Your task to perform on an android device: turn off notifications settings in the gmail app Image 0: 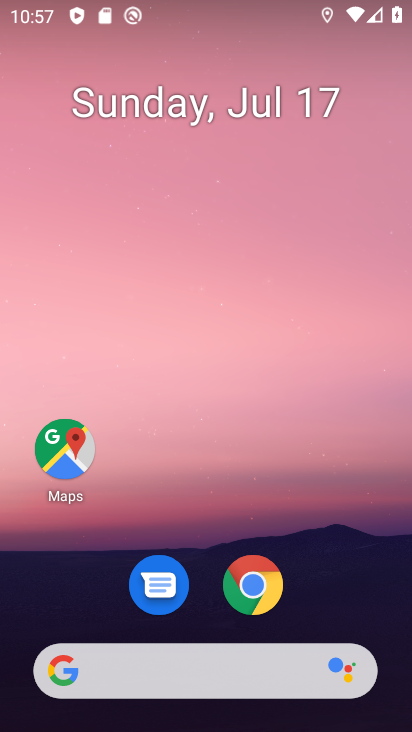
Step 0: drag from (308, 577) to (304, 14)
Your task to perform on an android device: turn off notifications settings in the gmail app Image 1: 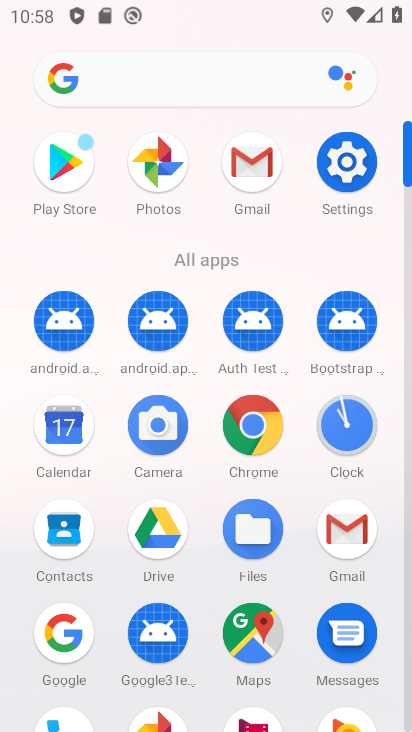
Step 1: click (264, 155)
Your task to perform on an android device: turn off notifications settings in the gmail app Image 2: 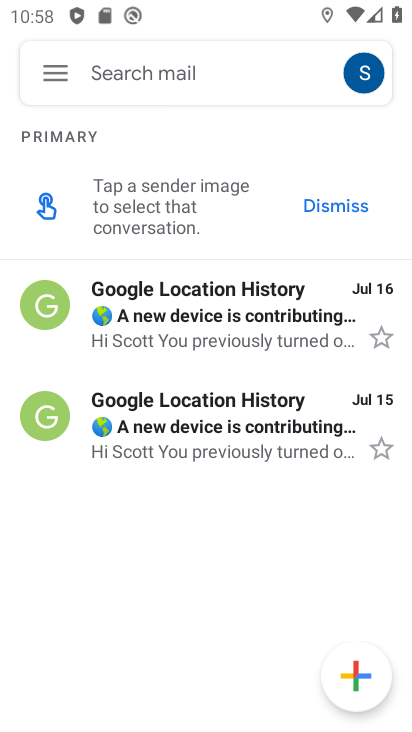
Step 2: click (50, 75)
Your task to perform on an android device: turn off notifications settings in the gmail app Image 3: 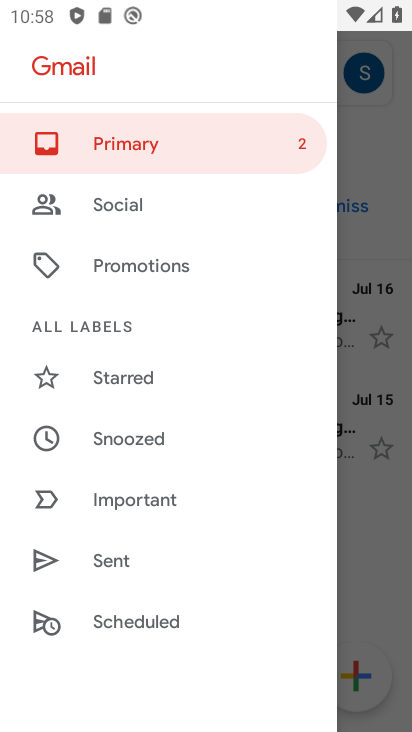
Step 3: drag from (150, 567) to (176, 133)
Your task to perform on an android device: turn off notifications settings in the gmail app Image 4: 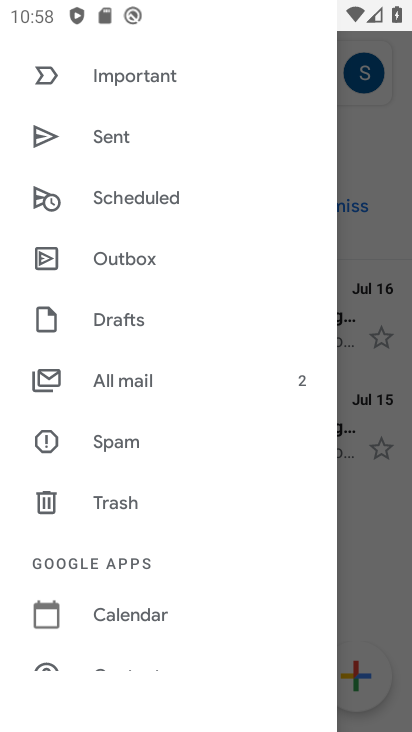
Step 4: drag from (175, 532) to (183, 272)
Your task to perform on an android device: turn off notifications settings in the gmail app Image 5: 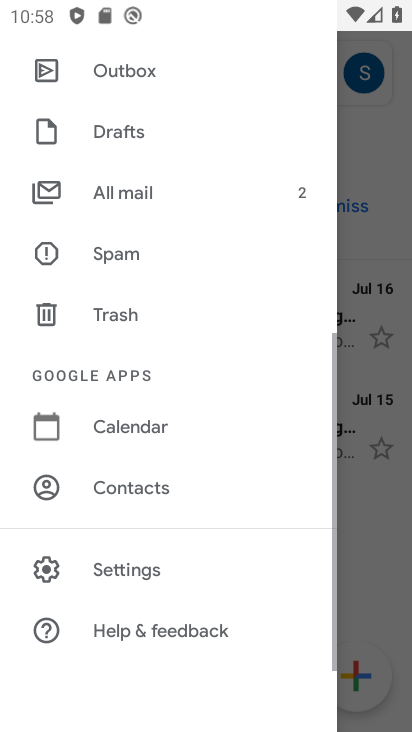
Step 5: click (161, 569)
Your task to perform on an android device: turn off notifications settings in the gmail app Image 6: 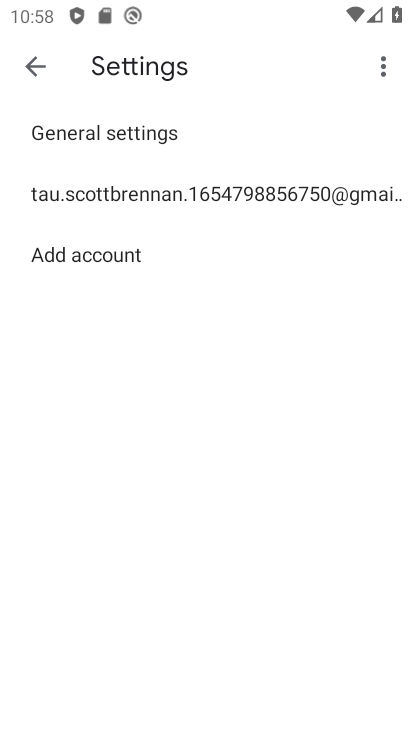
Step 6: click (155, 130)
Your task to perform on an android device: turn off notifications settings in the gmail app Image 7: 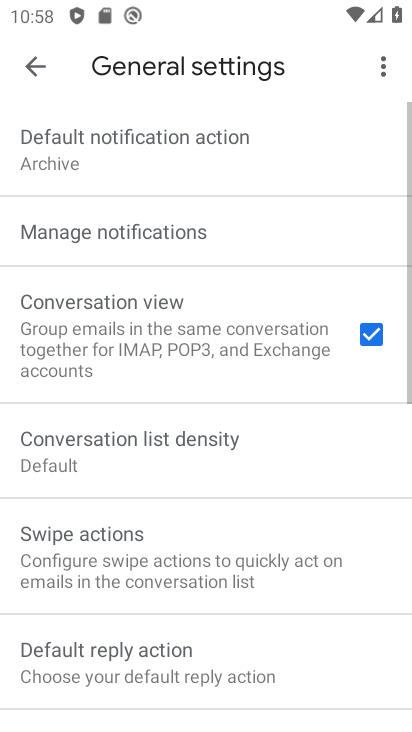
Step 7: click (172, 243)
Your task to perform on an android device: turn off notifications settings in the gmail app Image 8: 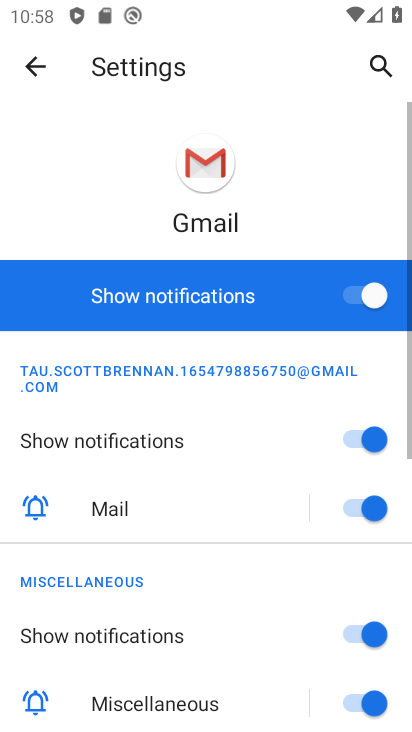
Step 8: click (362, 286)
Your task to perform on an android device: turn off notifications settings in the gmail app Image 9: 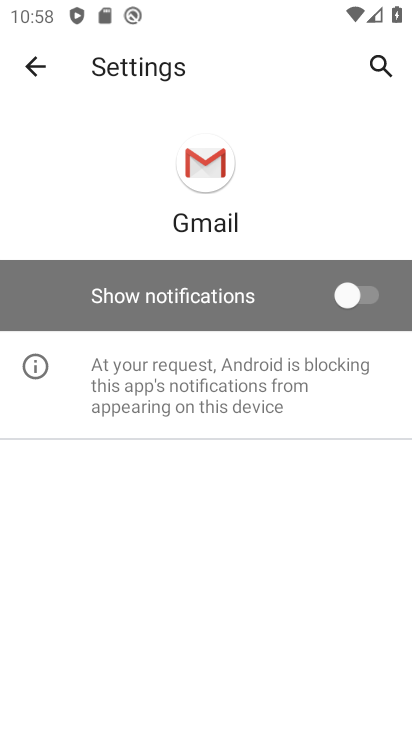
Step 9: task complete